Your task to perform on an android device: Search for Italian restaurants on Maps Image 0: 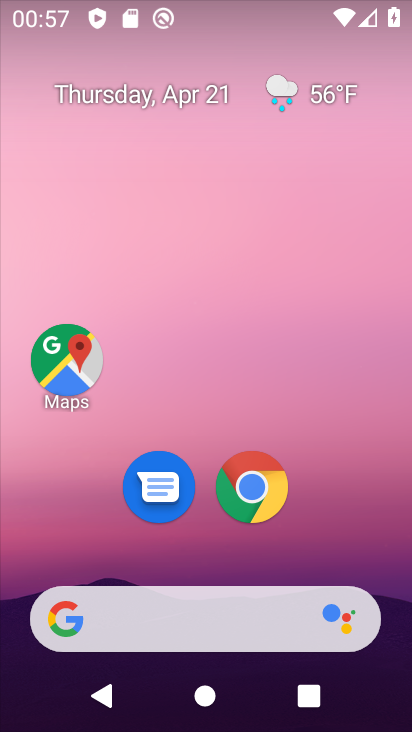
Step 0: drag from (336, 559) to (249, 62)
Your task to perform on an android device: Search for Italian restaurants on Maps Image 1: 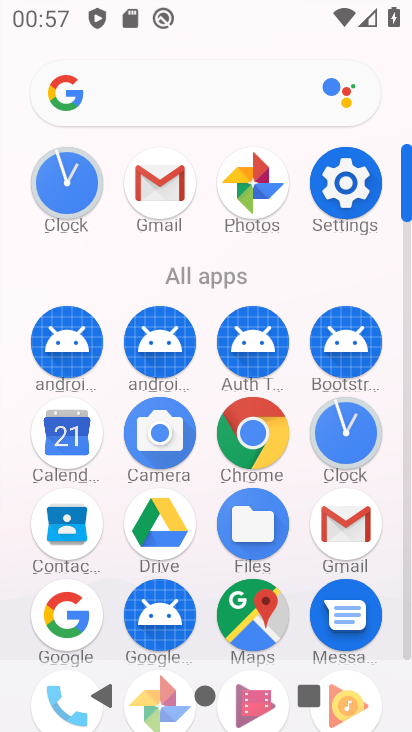
Step 1: click (244, 622)
Your task to perform on an android device: Search for Italian restaurants on Maps Image 2: 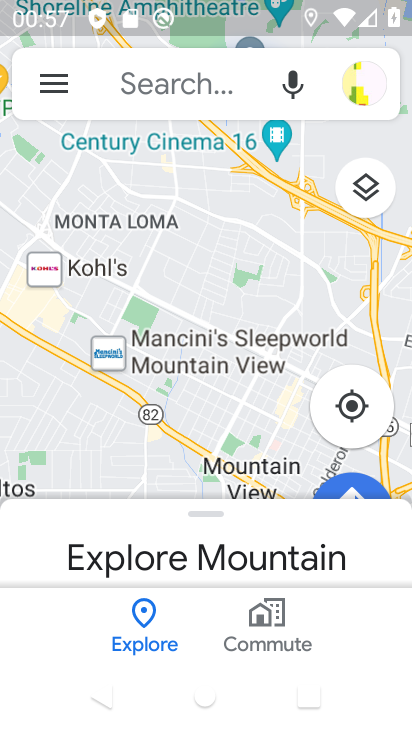
Step 2: click (198, 70)
Your task to perform on an android device: Search for Italian restaurants on Maps Image 3: 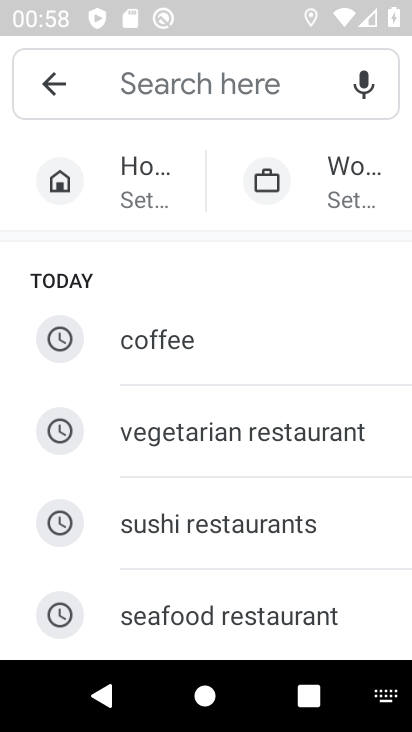
Step 3: type "italian restaurants"
Your task to perform on an android device: Search for Italian restaurants on Maps Image 4: 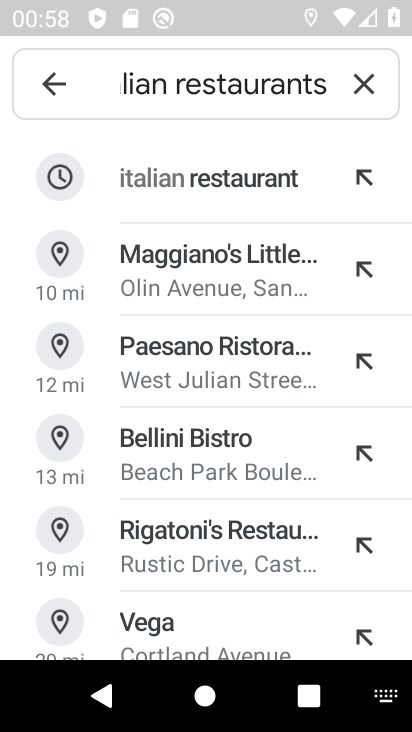
Step 4: click (223, 175)
Your task to perform on an android device: Search for Italian restaurants on Maps Image 5: 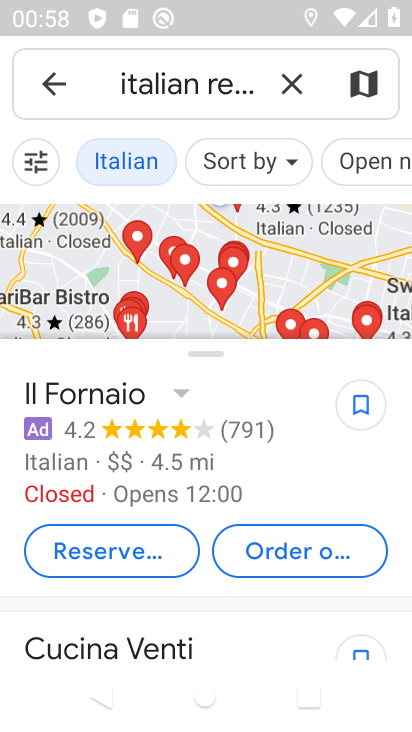
Step 5: task complete